Your task to perform on an android device: turn on the 12-hour format for clock Image 0: 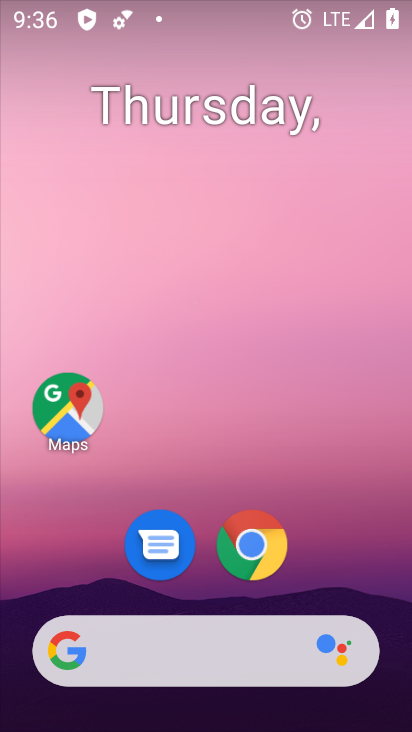
Step 0: drag from (331, 559) to (188, 34)
Your task to perform on an android device: turn on the 12-hour format for clock Image 1: 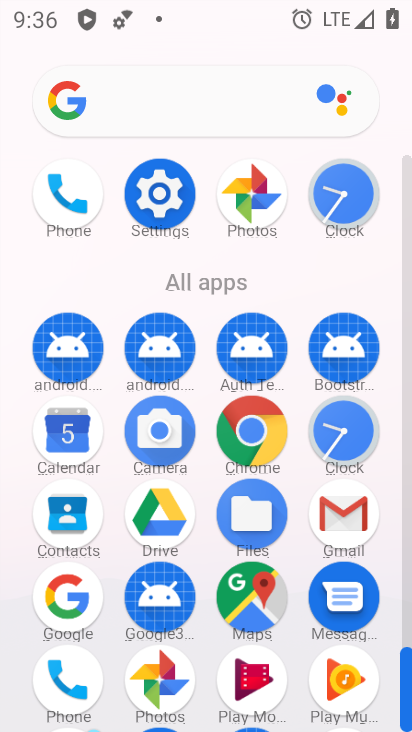
Step 1: click (343, 412)
Your task to perform on an android device: turn on the 12-hour format for clock Image 2: 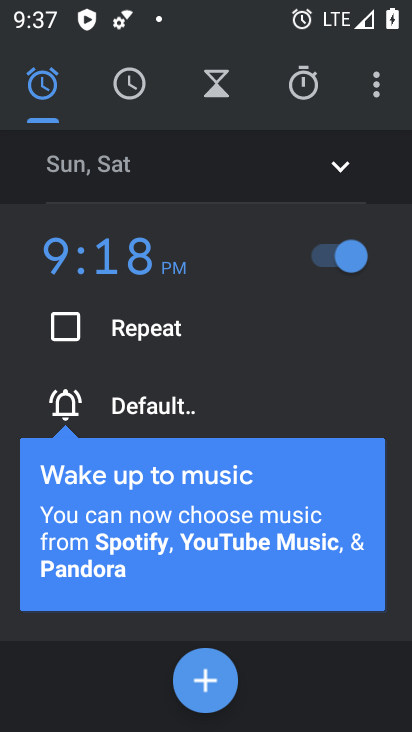
Step 2: click (380, 81)
Your task to perform on an android device: turn on the 12-hour format for clock Image 3: 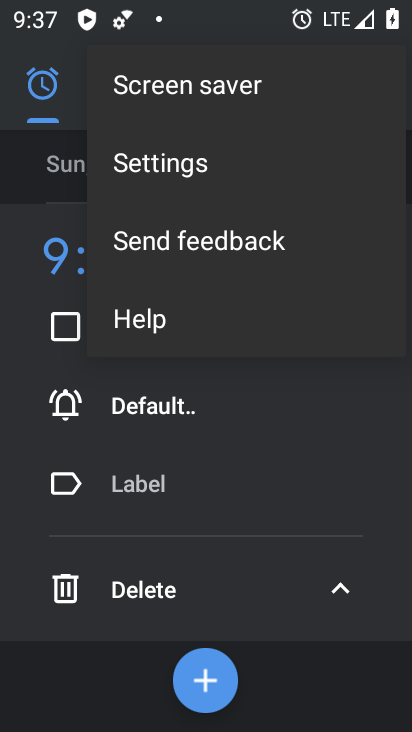
Step 3: click (188, 161)
Your task to perform on an android device: turn on the 12-hour format for clock Image 4: 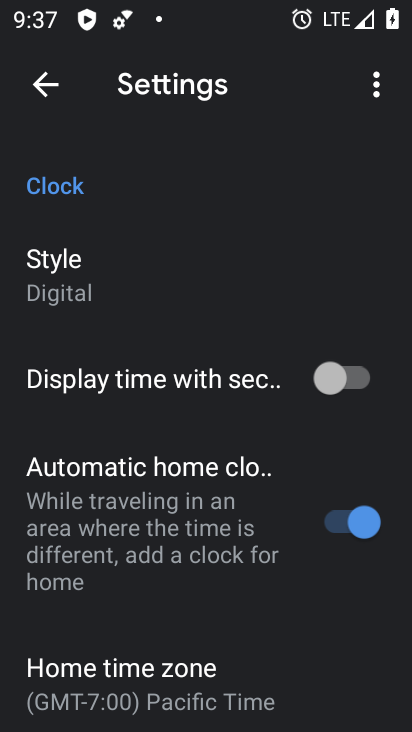
Step 4: drag from (244, 579) to (221, 279)
Your task to perform on an android device: turn on the 12-hour format for clock Image 5: 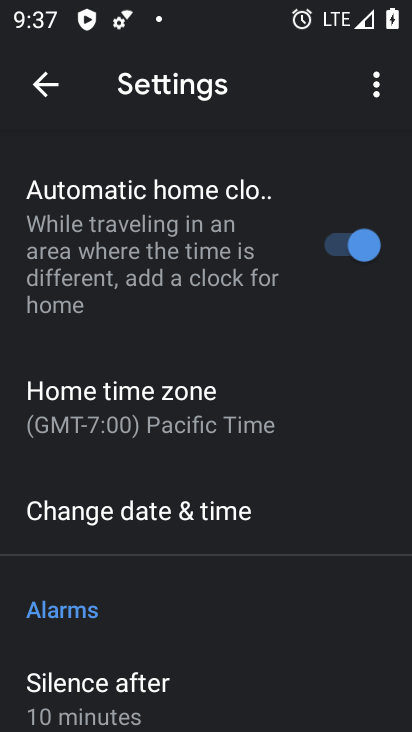
Step 5: drag from (217, 594) to (200, 333)
Your task to perform on an android device: turn on the 12-hour format for clock Image 6: 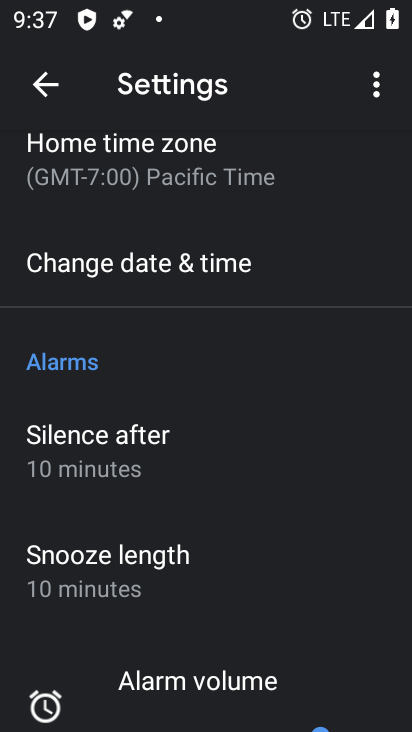
Step 6: drag from (248, 509) to (215, 240)
Your task to perform on an android device: turn on the 12-hour format for clock Image 7: 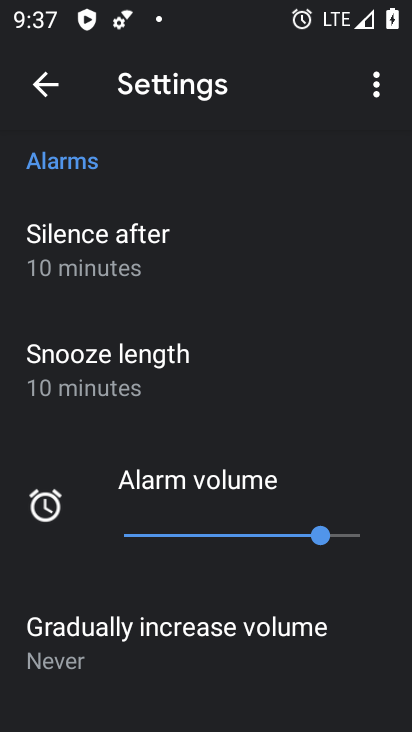
Step 7: drag from (228, 250) to (315, 617)
Your task to perform on an android device: turn on the 12-hour format for clock Image 8: 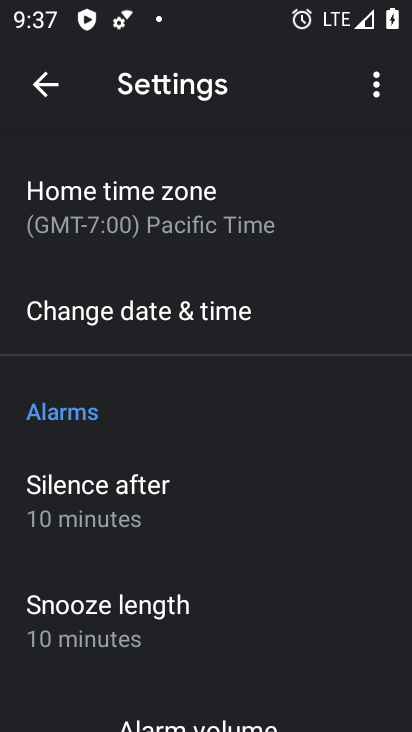
Step 8: drag from (283, 288) to (213, 700)
Your task to perform on an android device: turn on the 12-hour format for clock Image 9: 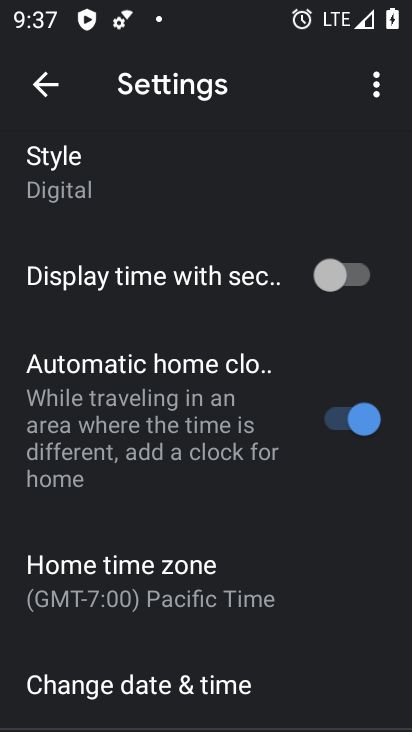
Step 9: drag from (204, 520) to (130, 169)
Your task to perform on an android device: turn on the 12-hour format for clock Image 10: 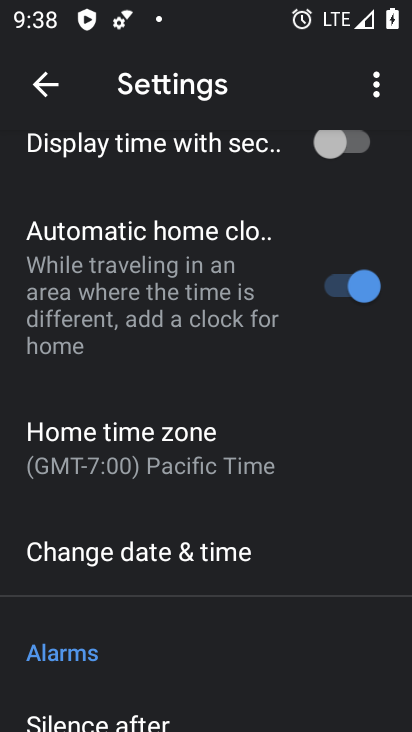
Step 10: click (149, 566)
Your task to perform on an android device: turn on the 12-hour format for clock Image 11: 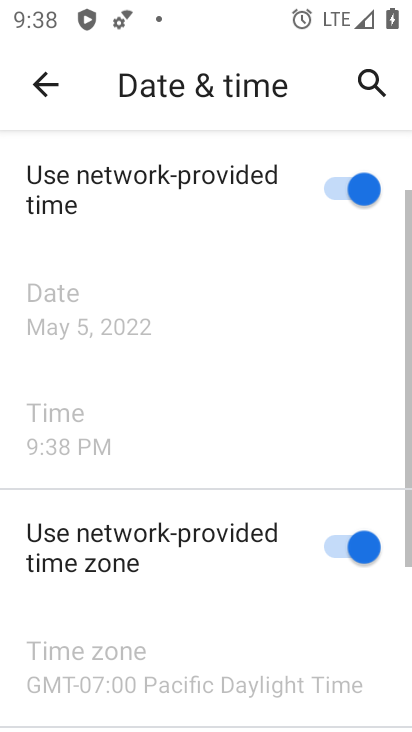
Step 11: task complete